Your task to perform on an android device: turn off sleep mode Image 0: 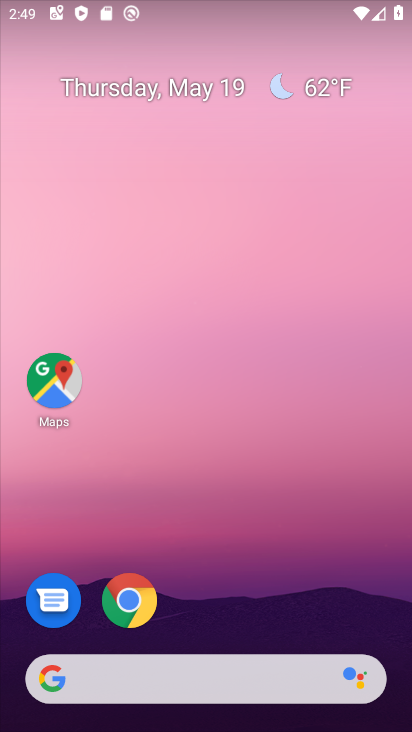
Step 0: drag from (70, 463) to (262, 161)
Your task to perform on an android device: turn off sleep mode Image 1: 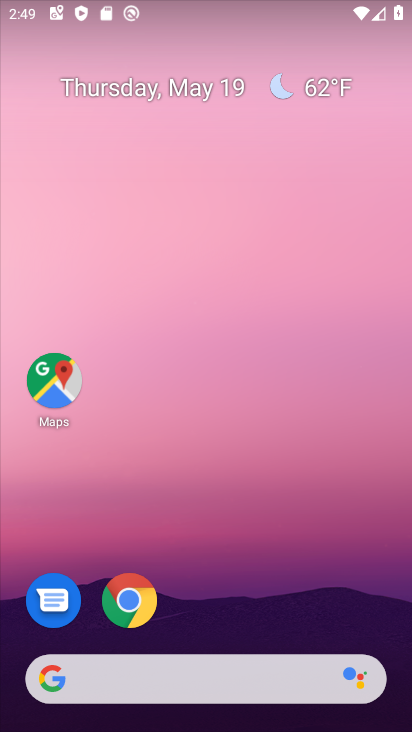
Step 1: drag from (107, 471) to (296, 170)
Your task to perform on an android device: turn off sleep mode Image 2: 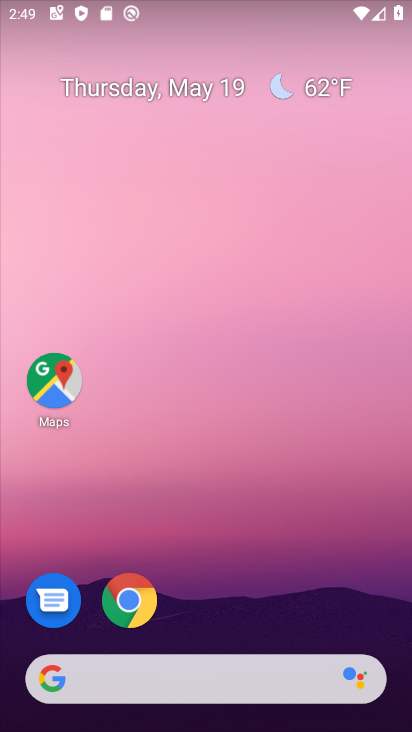
Step 2: drag from (173, 266) to (318, 48)
Your task to perform on an android device: turn off sleep mode Image 3: 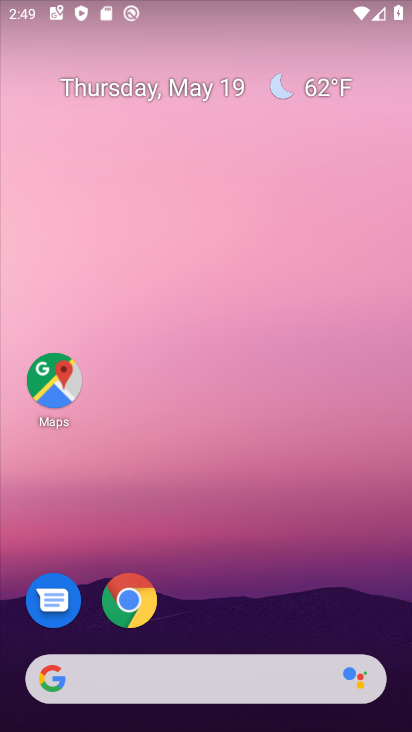
Step 3: drag from (59, 496) to (277, 177)
Your task to perform on an android device: turn off sleep mode Image 4: 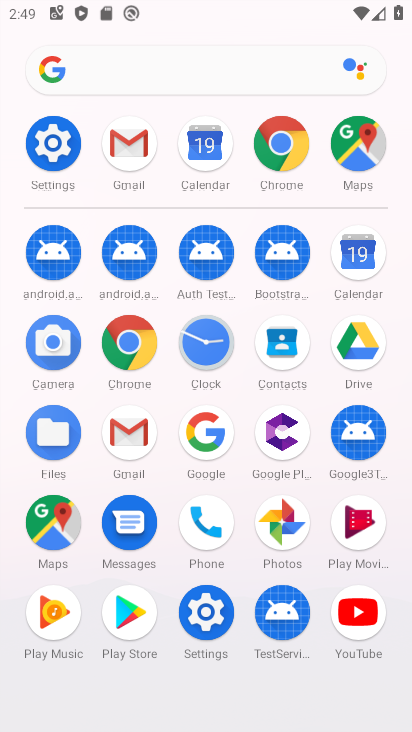
Step 4: click (50, 152)
Your task to perform on an android device: turn off sleep mode Image 5: 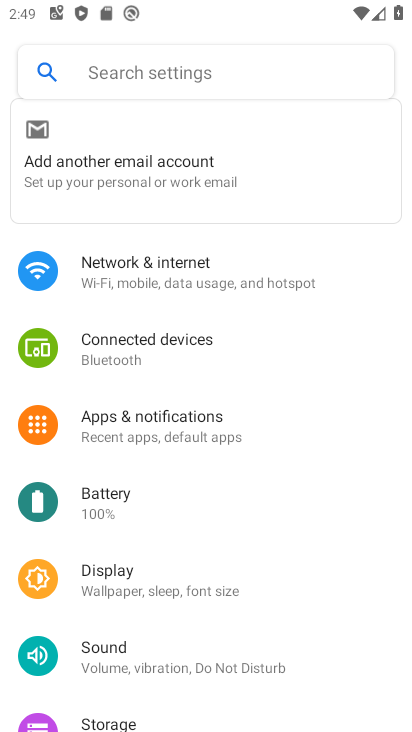
Step 5: click (109, 594)
Your task to perform on an android device: turn off sleep mode Image 6: 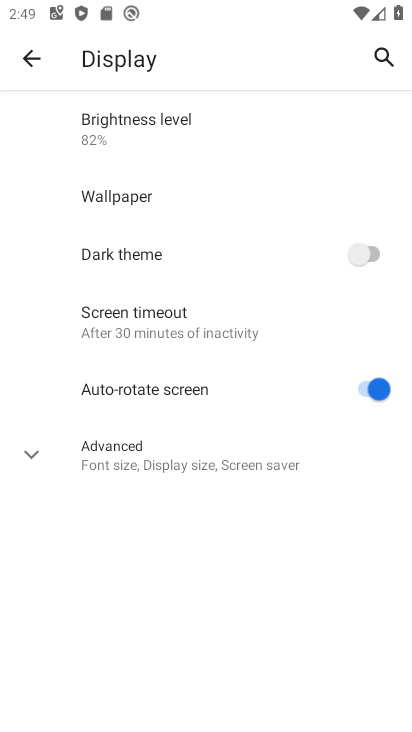
Step 6: task complete